Your task to perform on an android device: Empty the shopping cart on walmart.com. Add bose soundsport free to the cart on walmart.com Image 0: 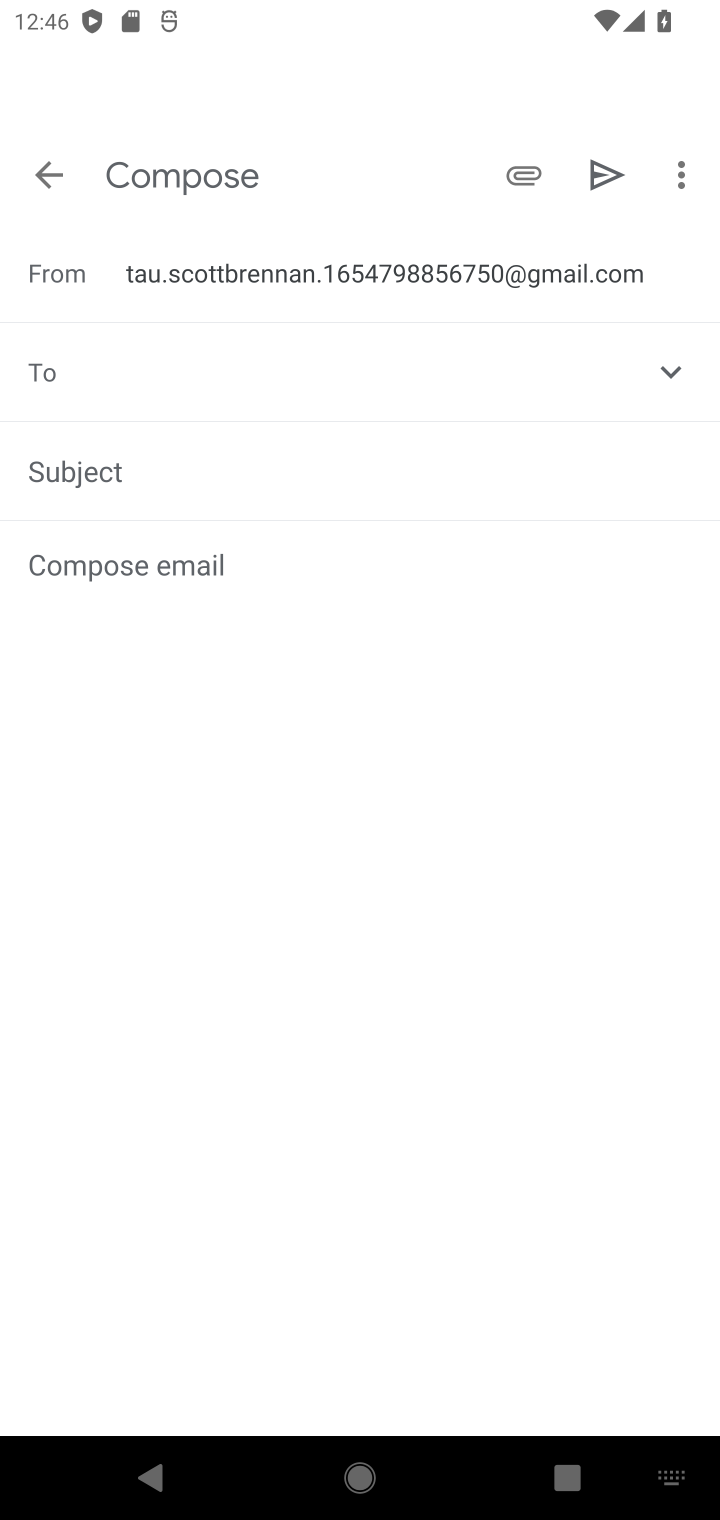
Step 0: press home button
Your task to perform on an android device: Empty the shopping cart on walmart.com. Add bose soundsport free to the cart on walmart.com Image 1: 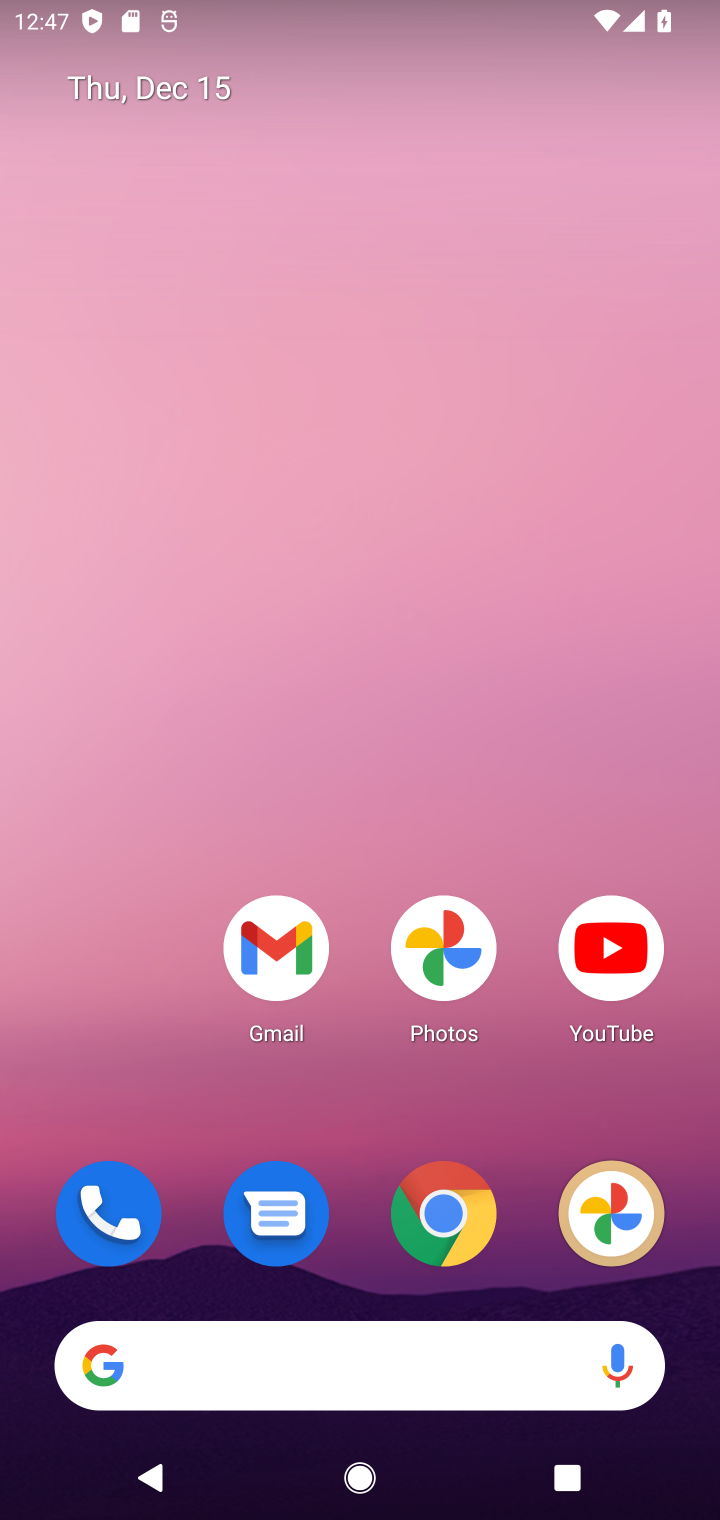
Step 1: click (452, 1193)
Your task to perform on an android device: Empty the shopping cart on walmart.com. Add bose soundsport free to the cart on walmart.com Image 2: 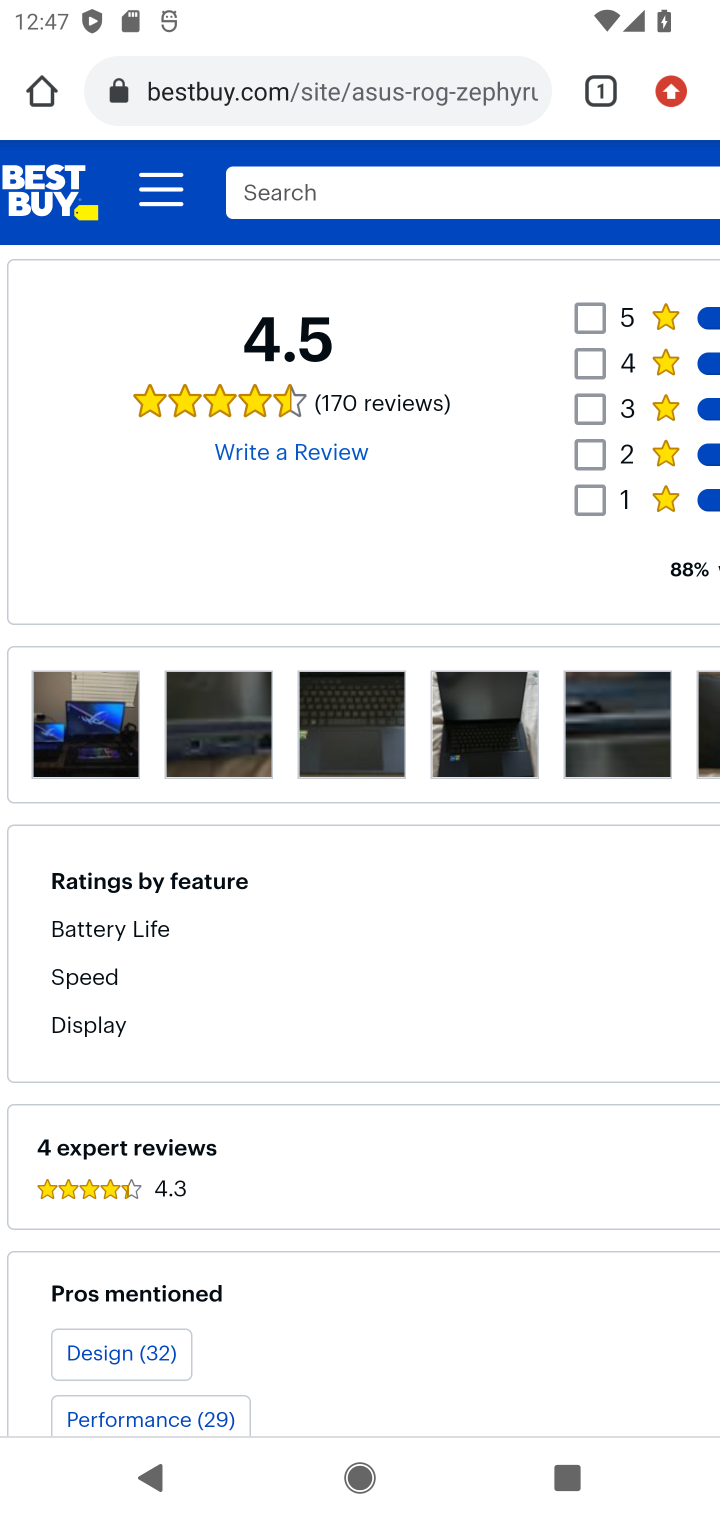
Step 2: task complete